Your task to perform on an android device: Open Google Maps and go to "Timeline" Image 0: 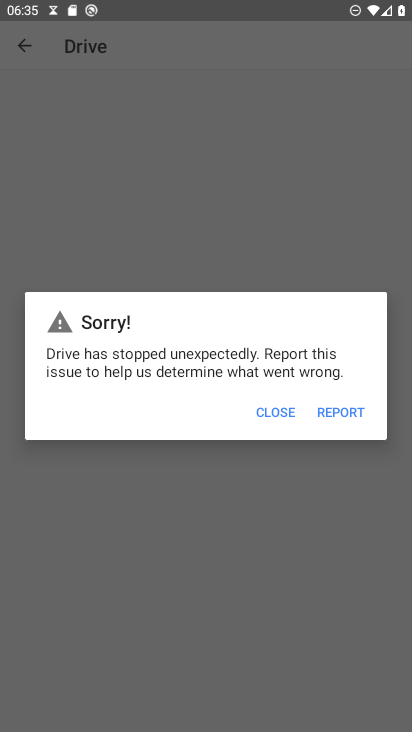
Step 0: press home button
Your task to perform on an android device: Open Google Maps and go to "Timeline" Image 1: 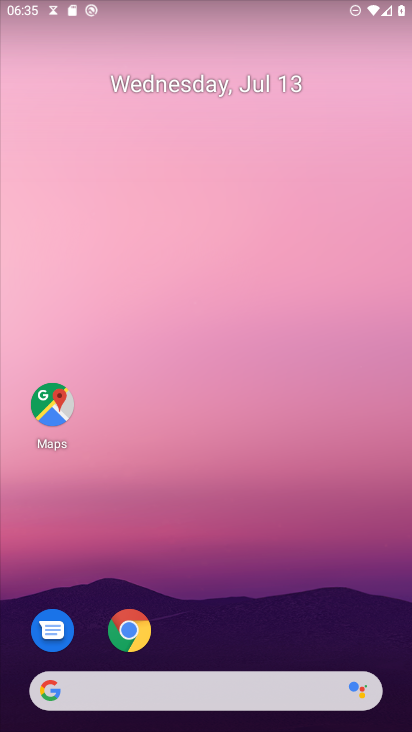
Step 1: drag from (215, 676) to (410, 661)
Your task to perform on an android device: Open Google Maps and go to "Timeline" Image 2: 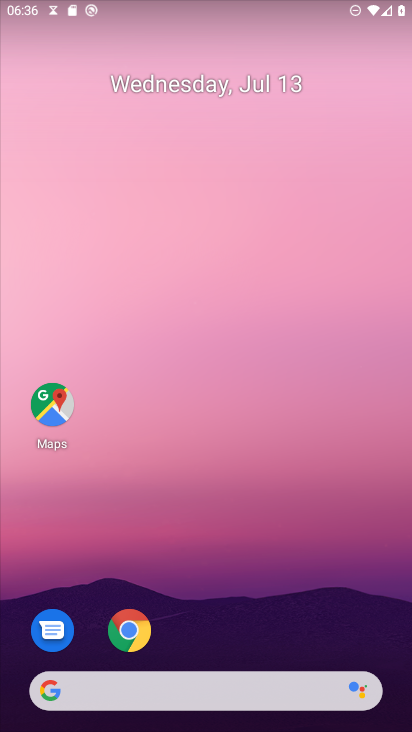
Step 2: drag from (240, 670) to (355, 6)
Your task to perform on an android device: Open Google Maps and go to "Timeline" Image 3: 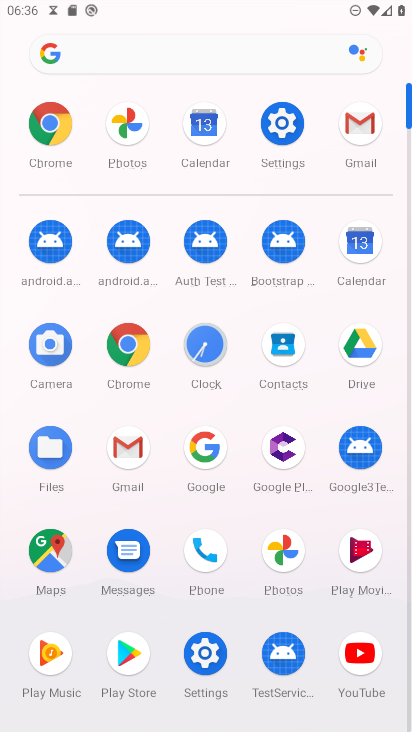
Step 3: click (44, 544)
Your task to perform on an android device: Open Google Maps and go to "Timeline" Image 4: 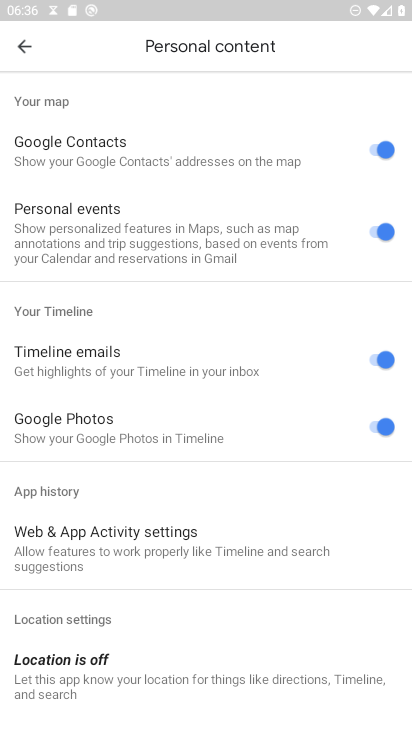
Step 4: press back button
Your task to perform on an android device: Open Google Maps and go to "Timeline" Image 5: 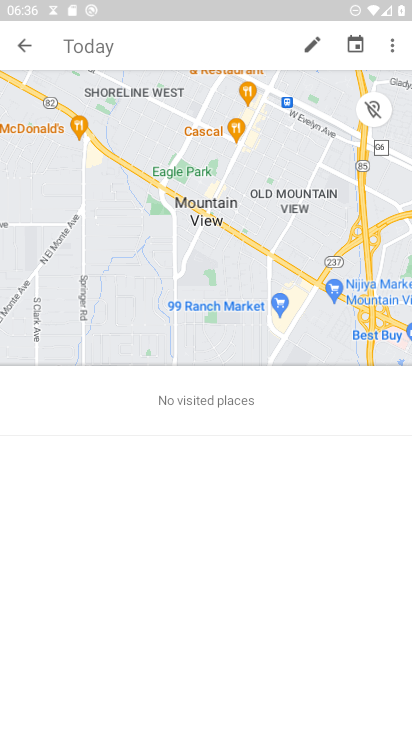
Step 5: press back button
Your task to perform on an android device: Open Google Maps and go to "Timeline" Image 6: 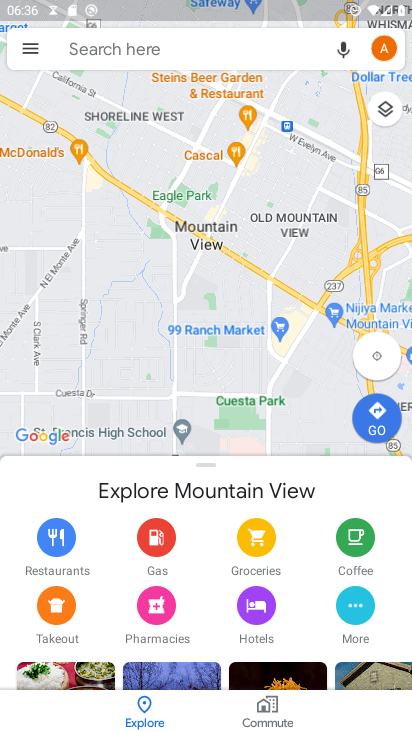
Step 6: click (13, 41)
Your task to perform on an android device: Open Google Maps and go to "Timeline" Image 7: 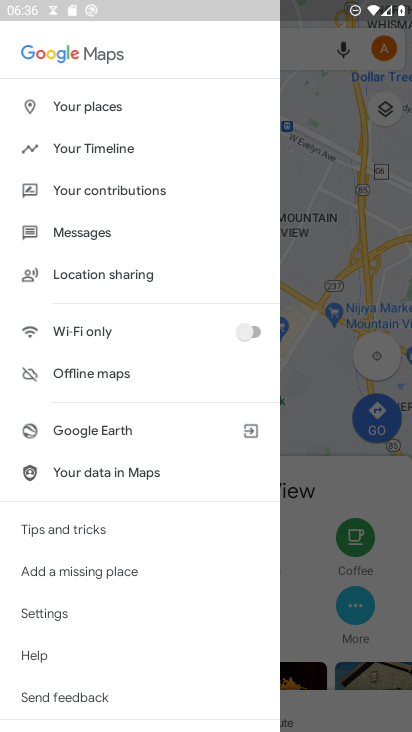
Step 7: click (120, 155)
Your task to perform on an android device: Open Google Maps and go to "Timeline" Image 8: 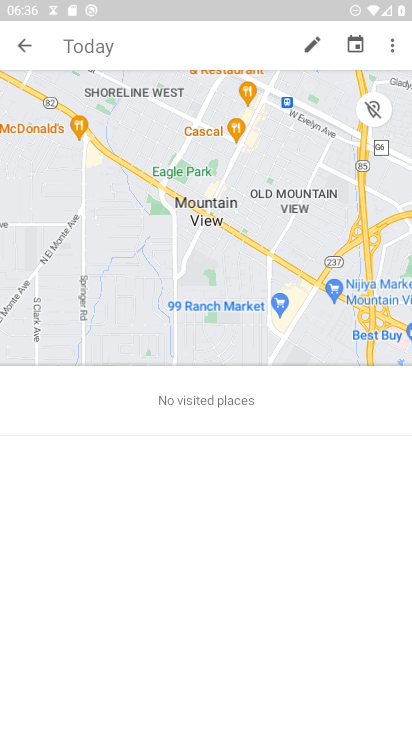
Step 8: task complete